Your task to perform on an android device: open a new tab in the chrome app Image 0: 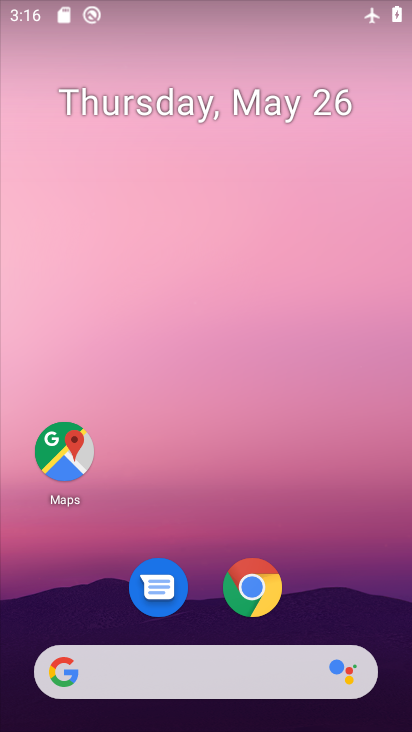
Step 0: press back button
Your task to perform on an android device: open a new tab in the chrome app Image 1: 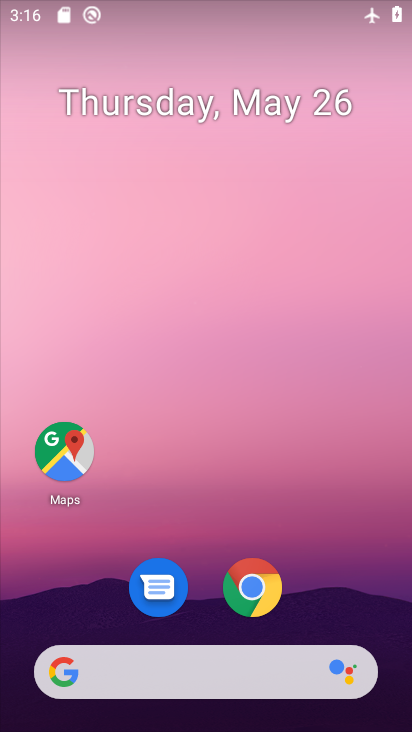
Step 1: drag from (302, 691) to (221, 193)
Your task to perform on an android device: open a new tab in the chrome app Image 2: 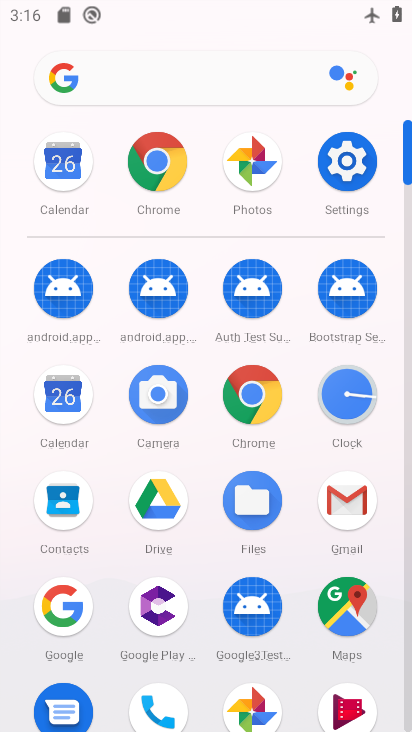
Step 2: click (170, 169)
Your task to perform on an android device: open a new tab in the chrome app Image 3: 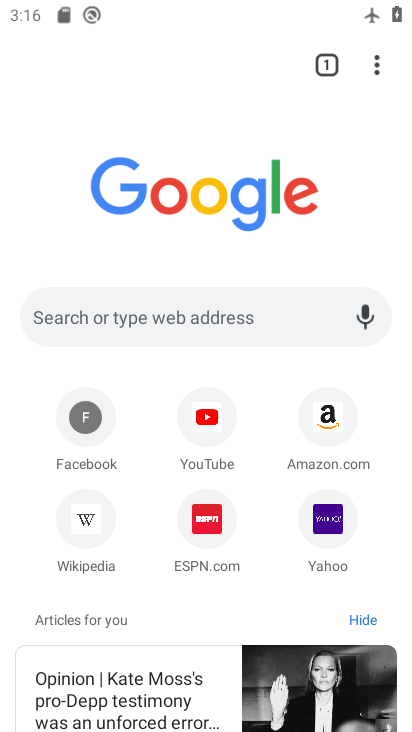
Step 3: press back button
Your task to perform on an android device: open a new tab in the chrome app Image 4: 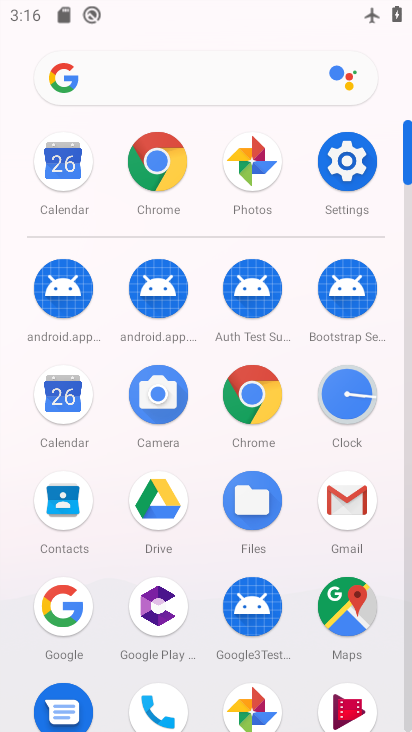
Step 4: click (148, 162)
Your task to perform on an android device: open a new tab in the chrome app Image 5: 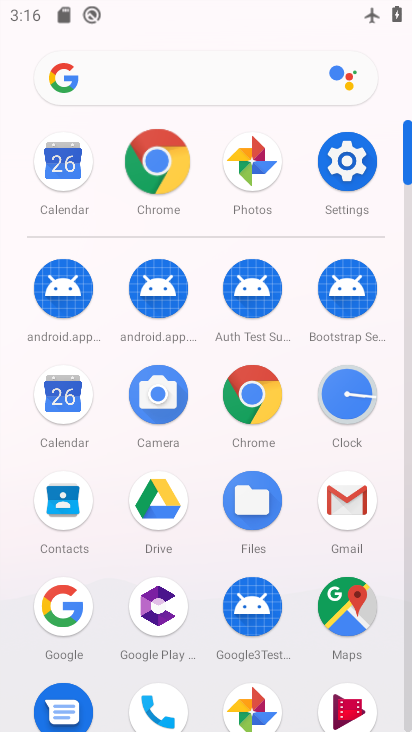
Step 5: click (148, 162)
Your task to perform on an android device: open a new tab in the chrome app Image 6: 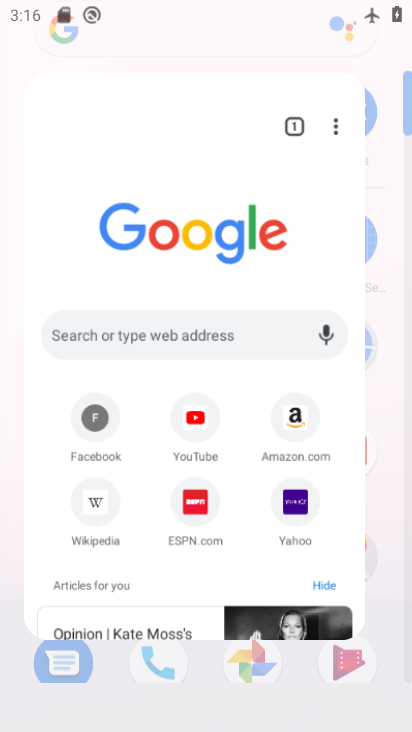
Step 6: click (148, 162)
Your task to perform on an android device: open a new tab in the chrome app Image 7: 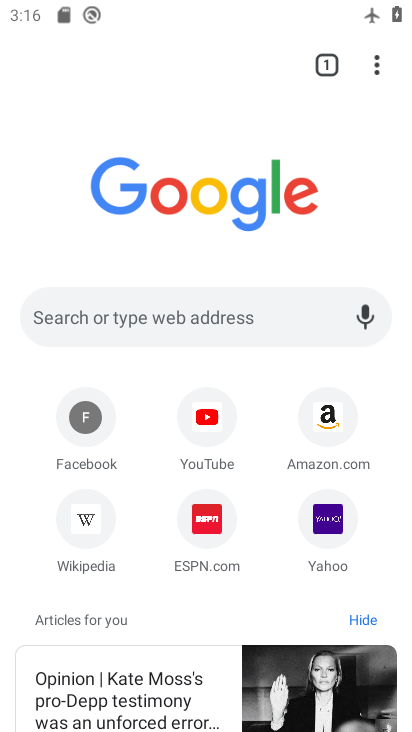
Step 7: click (374, 67)
Your task to perform on an android device: open a new tab in the chrome app Image 8: 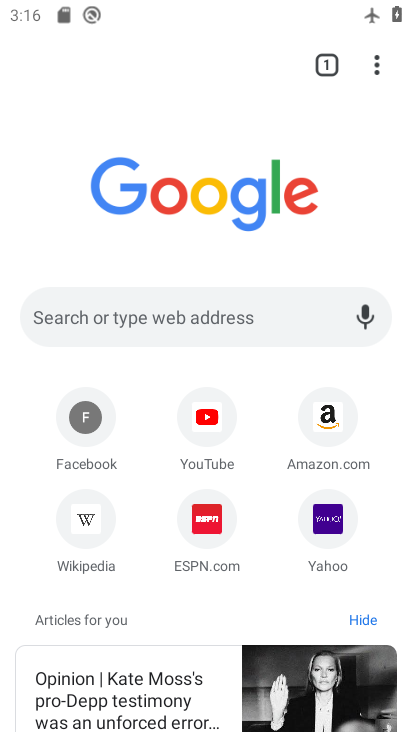
Step 8: drag from (377, 71) to (126, 123)
Your task to perform on an android device: open a new tab in the chrome app Image 9: 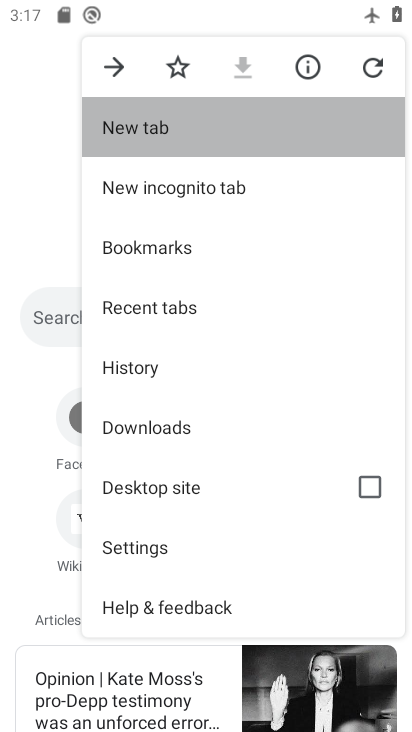
Step 9: click (126, 123)
Your task to perform on an android device: open a new tab in the chrome app Image 10: 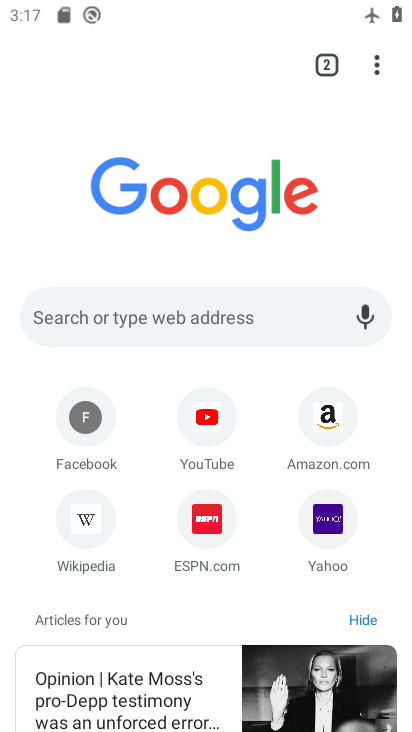
Step 10: task complete